Your task to perform on an android device: Go to display settings Image 0: 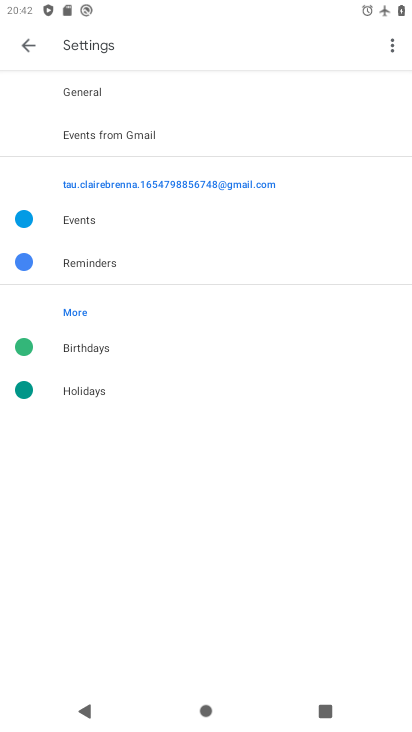
Step 0: press home button
Your task to perform on an android device: Go to display settings Image 1: 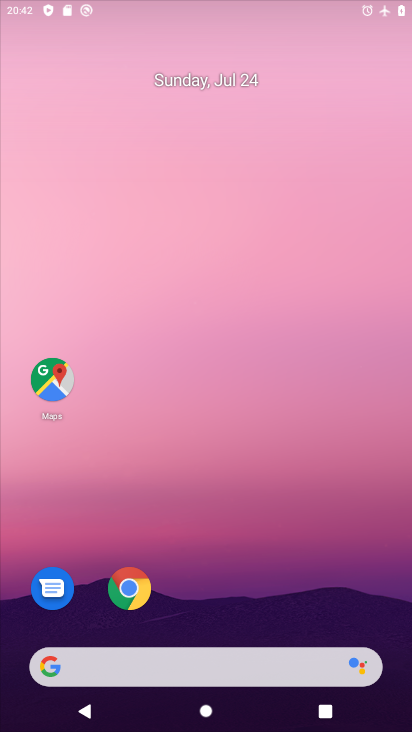
Step 1: drag from (217, 656) to (216, 217)
Your task to perform on an android device: Go to display settings Image 2: 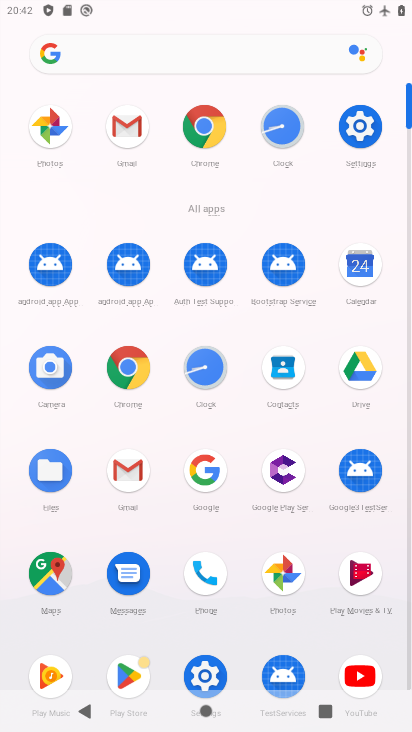
Step 2: click (355, 128)
Your task to perform on an android device: Go to display settings Image 3: 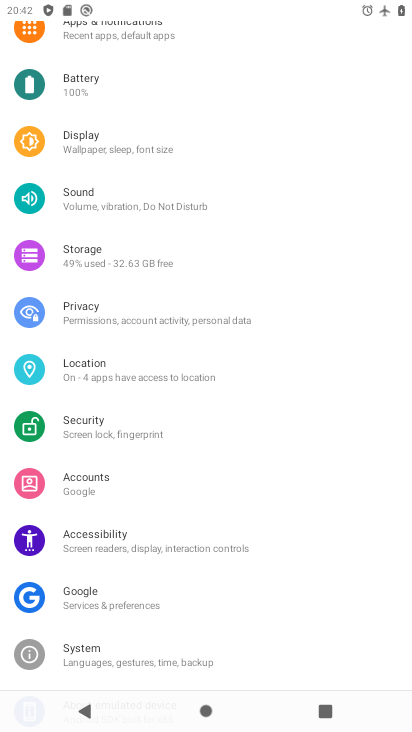
Step 3: click (76, 117)
Your task to perform on an android device: Go to display settings Image 4: 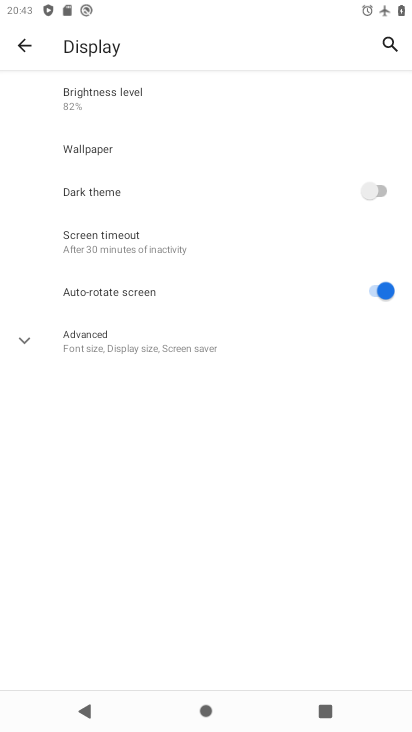
Step 4: task complete